Your task to perform on an android device: Clear the cart on newegg.com. Image 0: 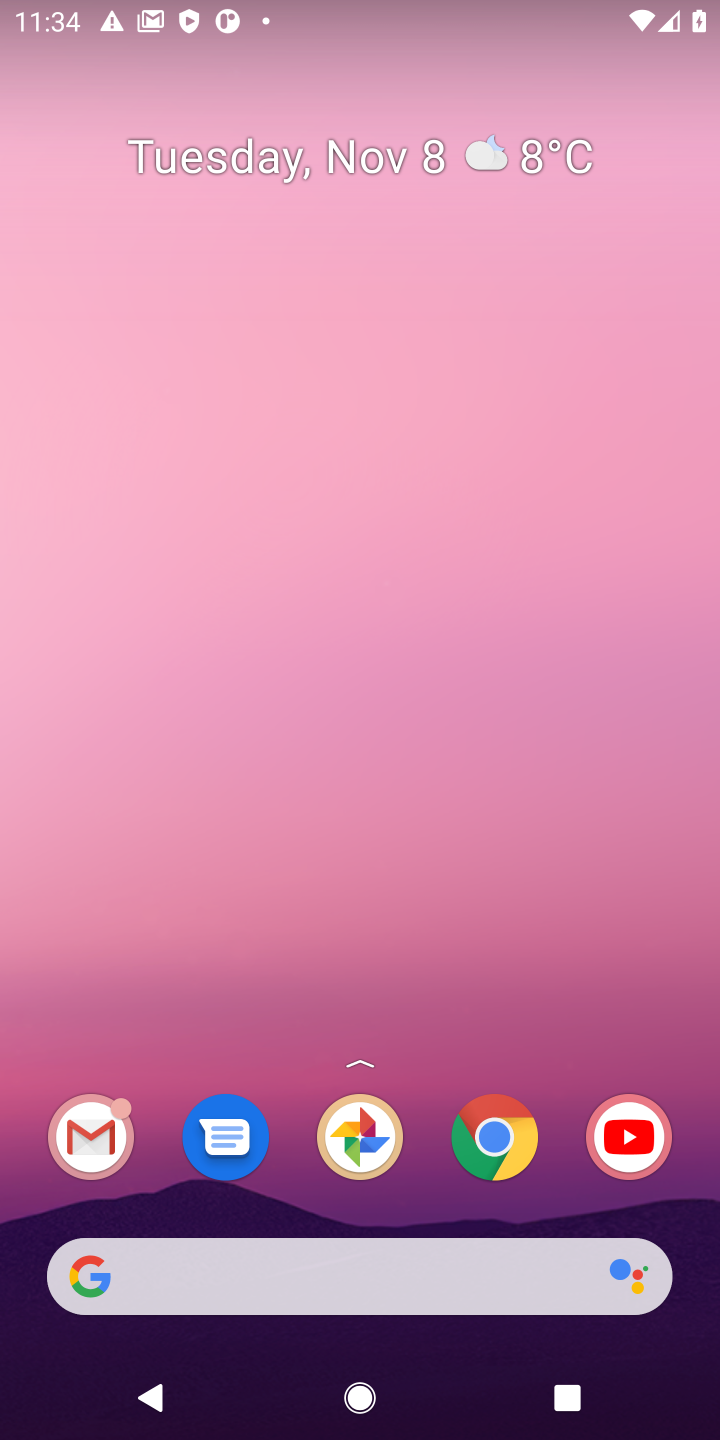
Step 0: click (465, 1115)
Your task to perform on an android device: Clear the cart on newegg.com. Image 1: 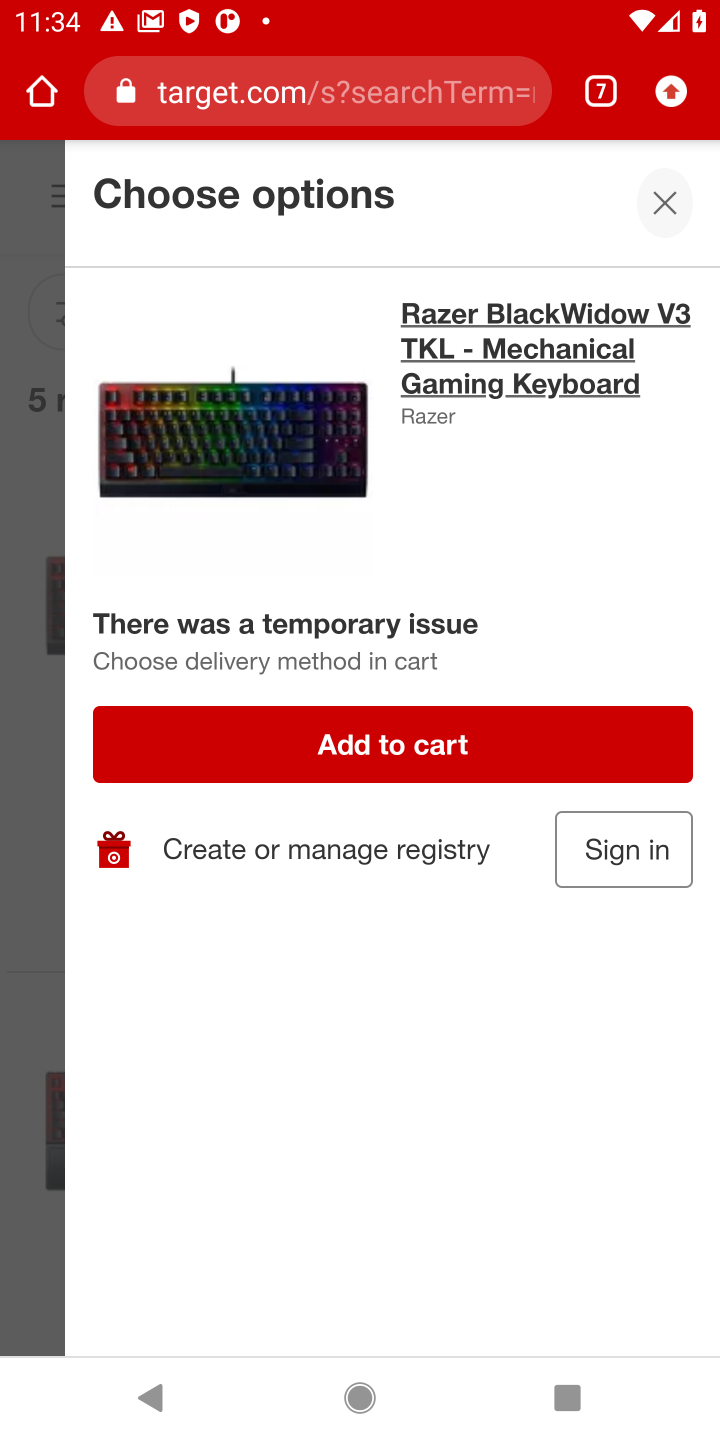
Step 1: click (598, 96)
Your task to perform on an android device: Clear the cart on newegg.com. Image 2: 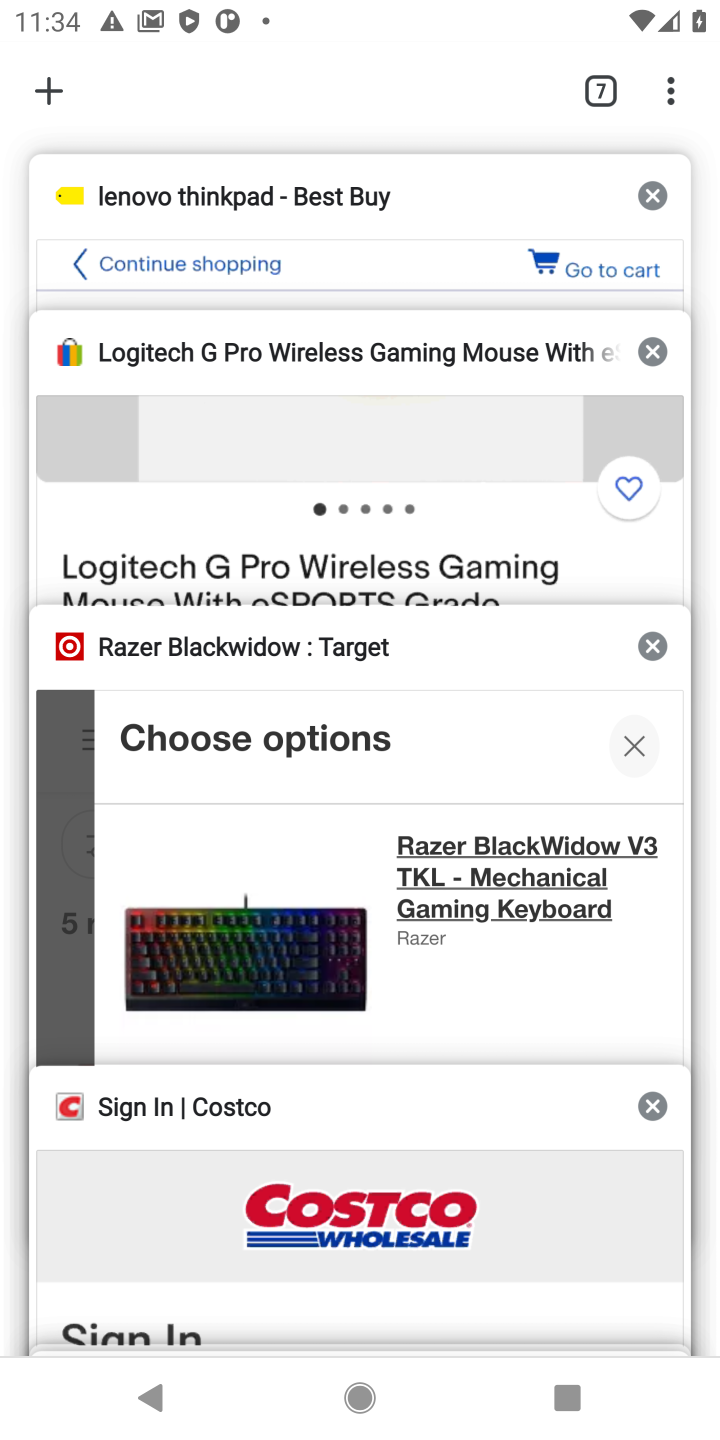
Step 2: drag from (256, 988) to (358, 690)
Your task to perform on an android device: Clear the cart on newegg.com. Image 3: 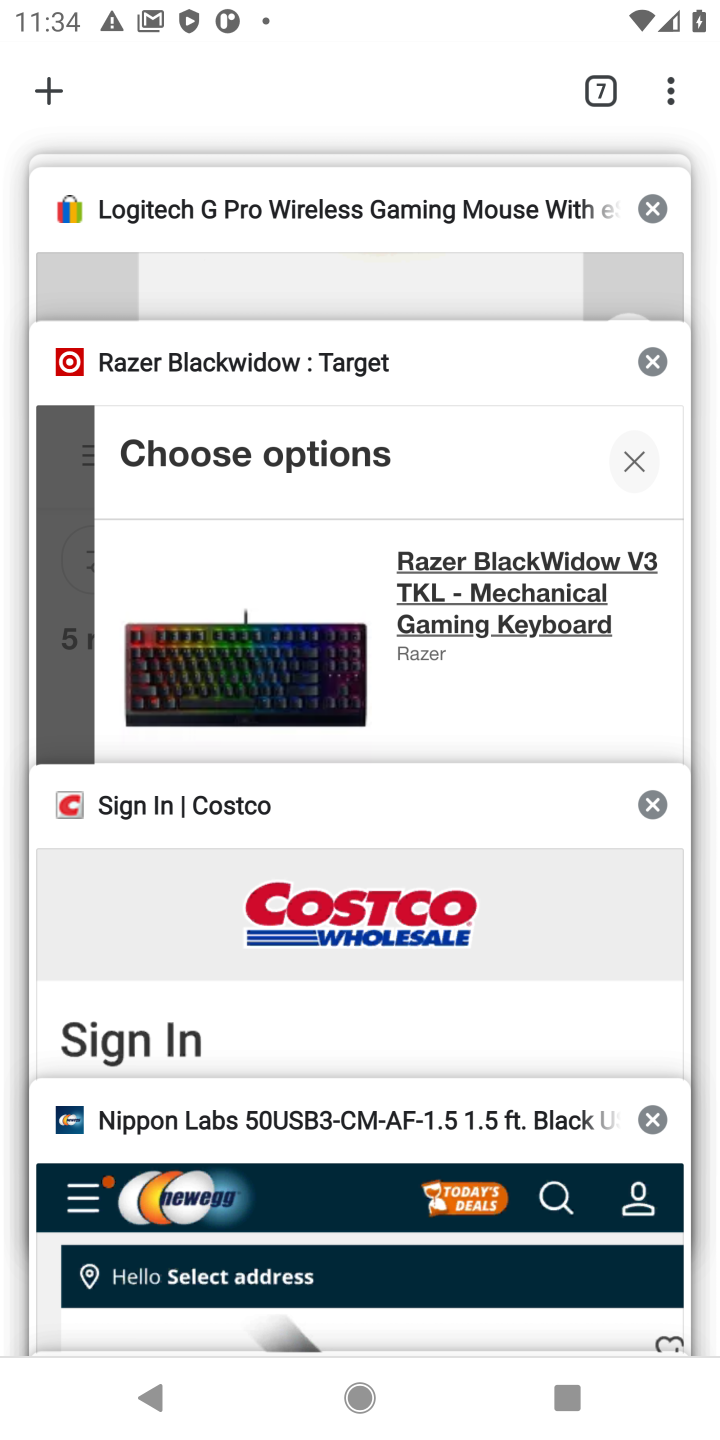
Step 3: click (262, 1229)
Your task to perform on an android device: Clear the cart on newegg.com. Image 4: 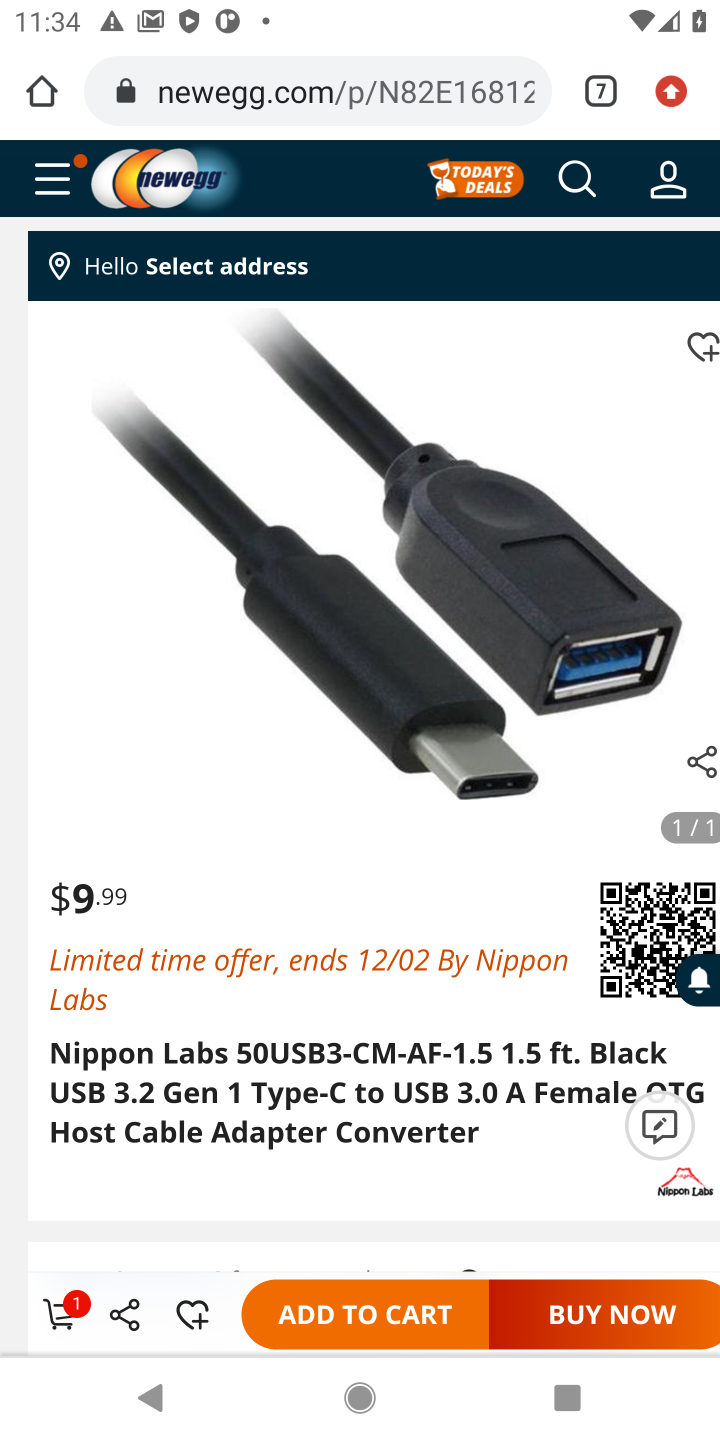
Step 4: click (65, 1313)
Your task to perform on an android device: Clear the cart on newegg.com. Image 5: 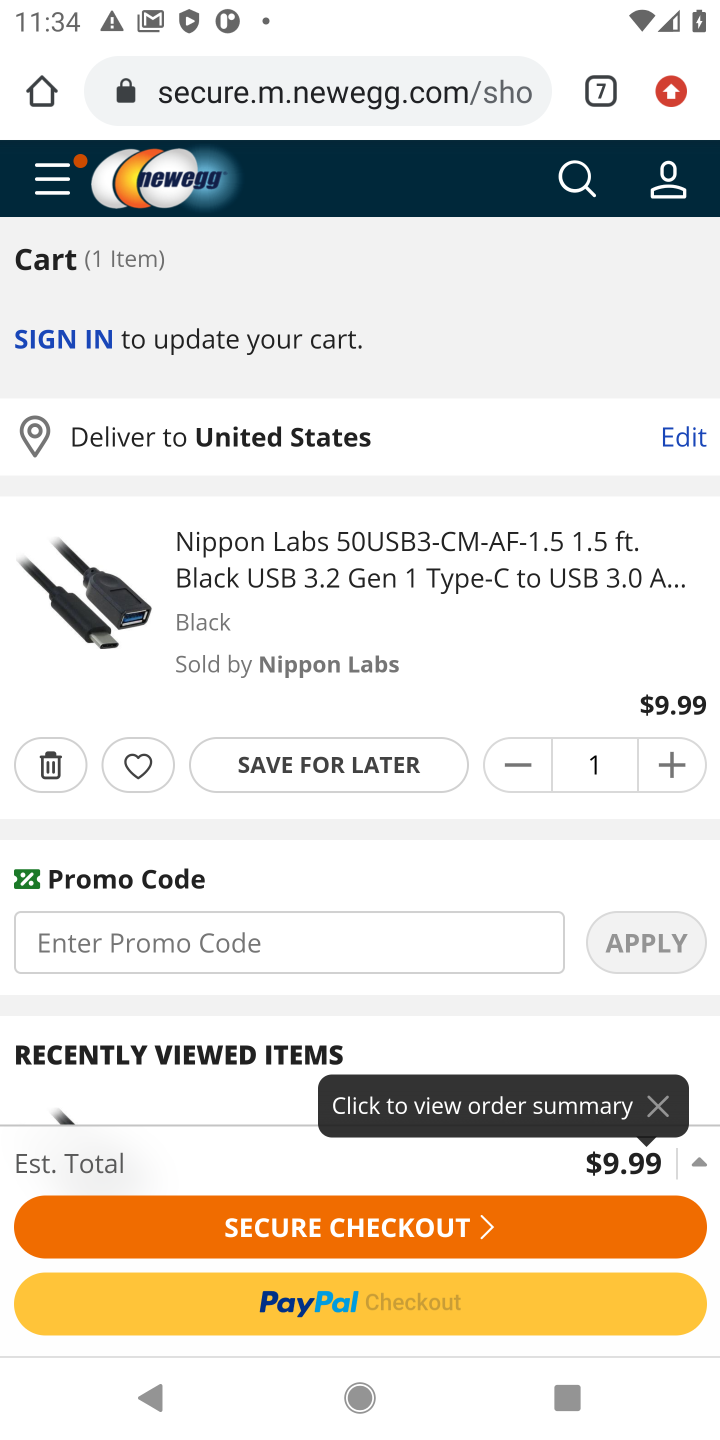
Step 5: click (44, 764)
Your task to perform on an android device: Clear the cart on newegg.com. Image 6: 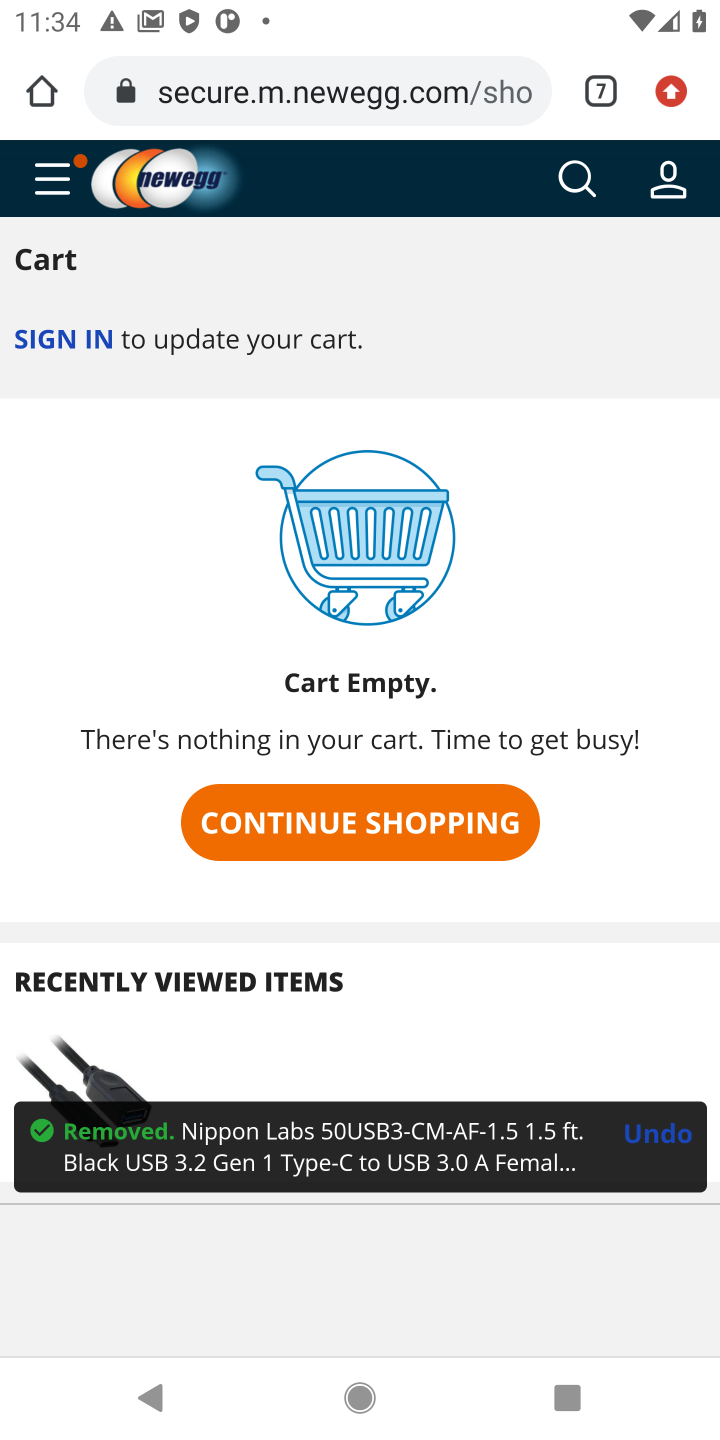
Step 6: task complete